Your task to perform on an android device: Open CNN.com Image 0: 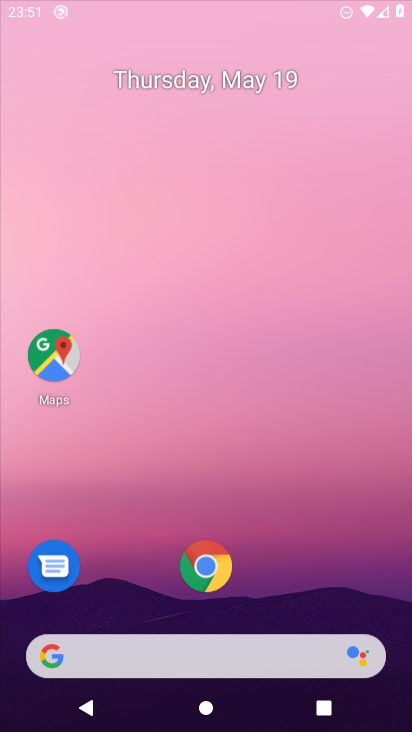
Step 0: press home button
Your task to perform on an android device: Open CNN.com Image 1: 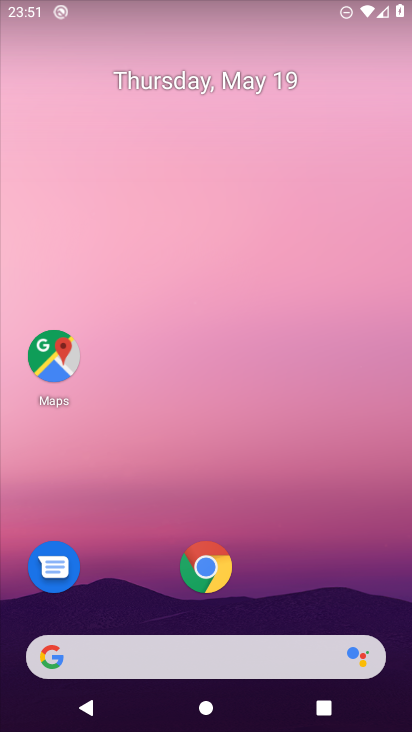
Step 1: click (201, 560)
Your task to perform on an android device: Open CNN.com Image 2: 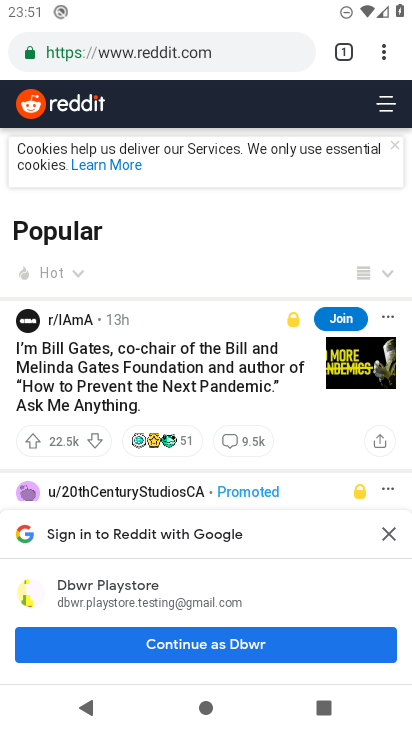
Step 2: click (346, 47)
Your task to perform on an android device: Open CNN.com Image 3: 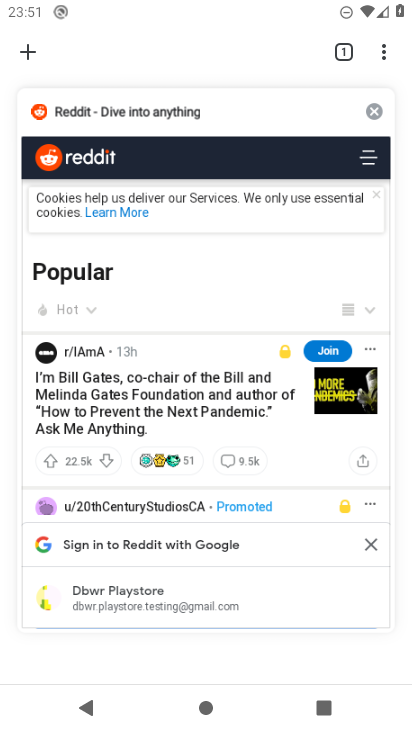
Step 3: click (28, 51)
Your task to perform on an android device: Open CNN.com Image 4: 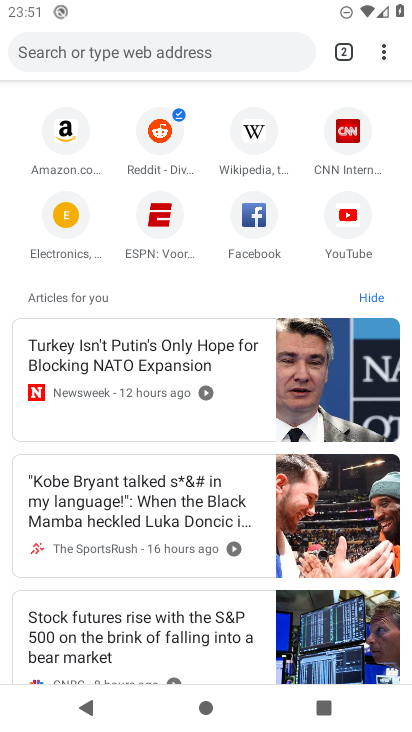
Step 4: click (341, 130)
Your task to perform on an android device: Open CNN.com Image 5: 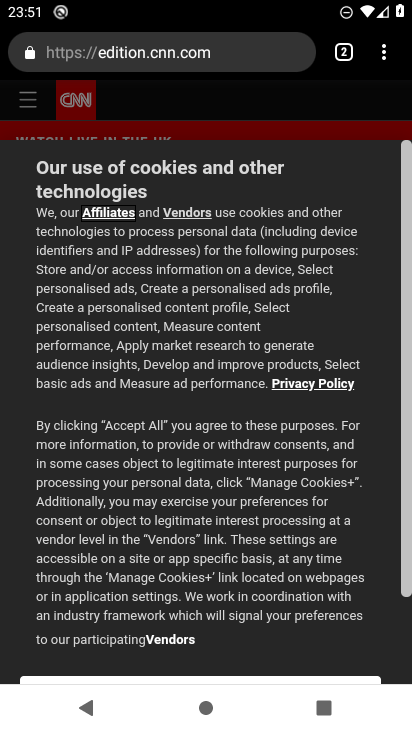
Step 5: drag from (230, 598) to (257, 123)
Your task to perform on an android device: Open CNN.com Image 6: 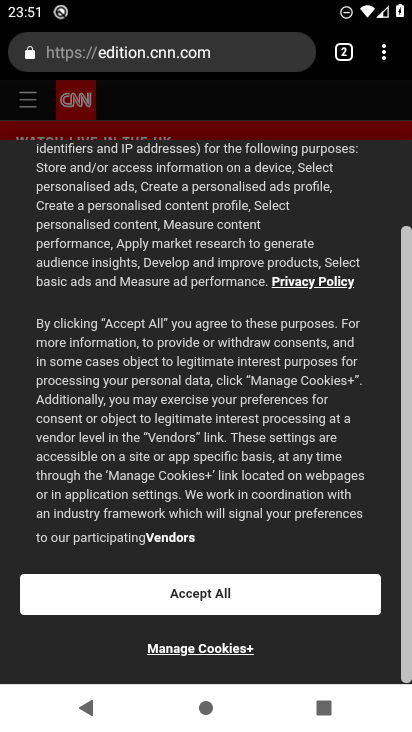
Step 6: click (196, 602)
Your task to perform on an android device: Open CNN.com Image 7: 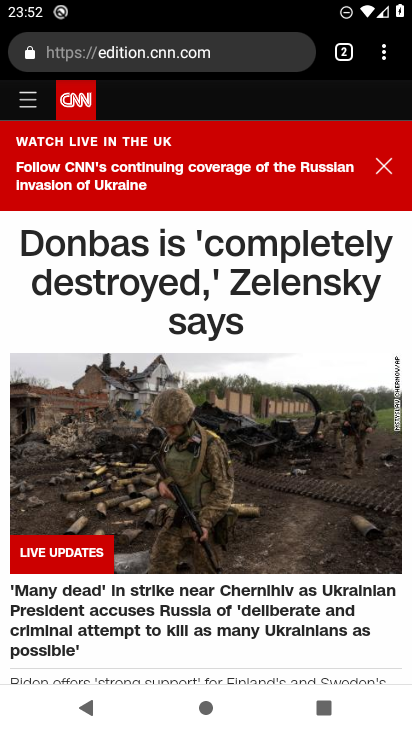
Step 7: task complete